Your task to perform on an android device: set an alarm Image 0: 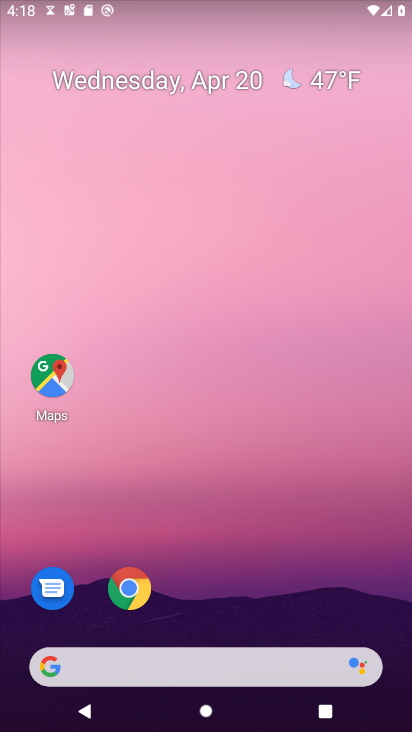
Step 0: drag from (268, 583) to (257, 59)
Your task to perform on an android device: set an alarm Image 1: 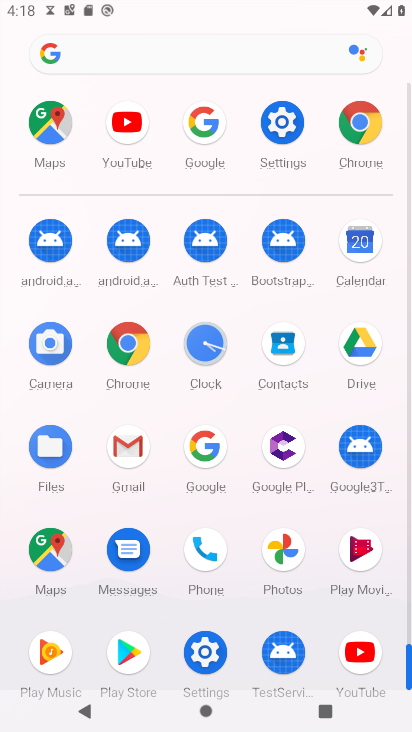
Step 1: click (195, 349)
Your task to perform on an android device: set an alarm Image 2: 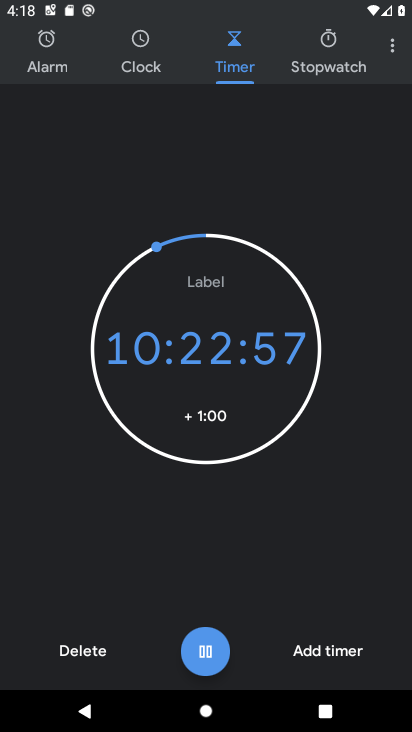
Step 2: click (44, 52)
Your task to perform on an android device: set an alarm Image 3: 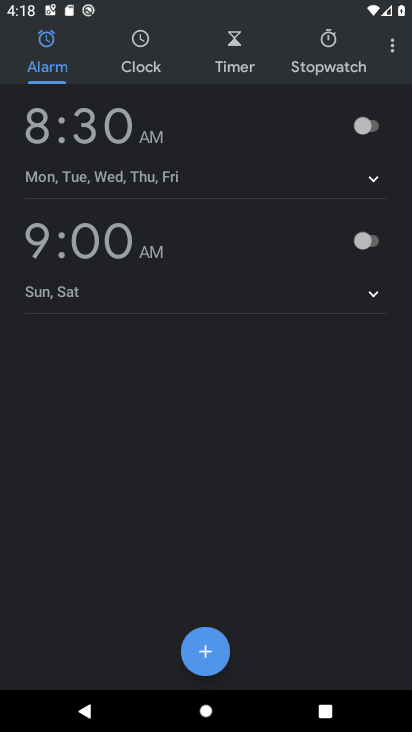
Step 3: click (210, 658)
Your task to perform on an android device: set an alarm Image 4: 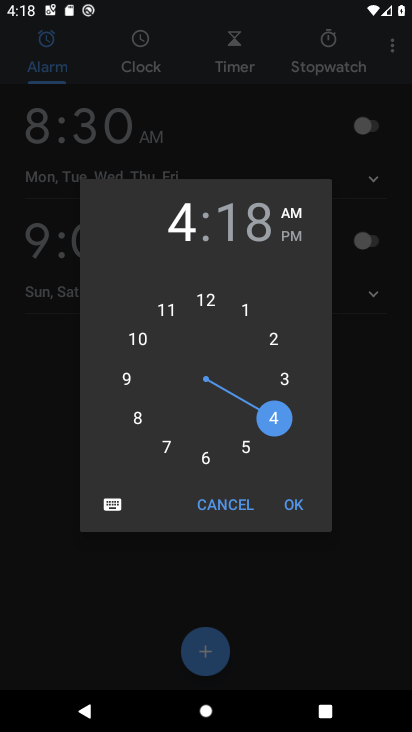
Step 4: click (286, 512)
Your task to perform on an android device: set an alarm Image 5: 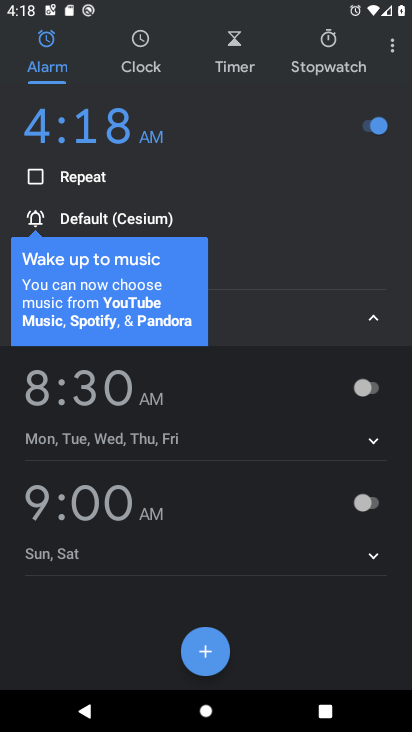
Step 5: click (376, 326)
Your task to perform on an android device: set an alarm Image 6: 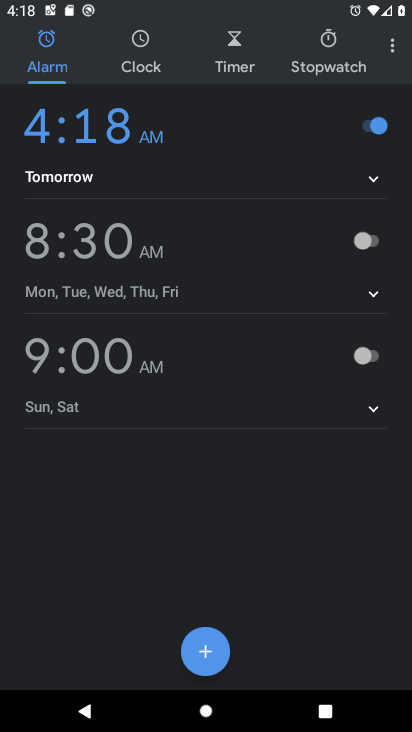
Step 6: task complete